Your task to perform on an android device: Open Wikipedia Image 0: 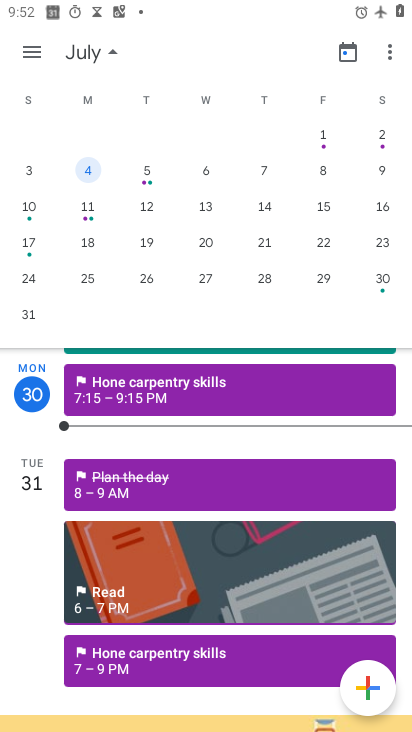
Step 0: press home button
Your task to perform on an android device: Open Wikipedia Image 1: 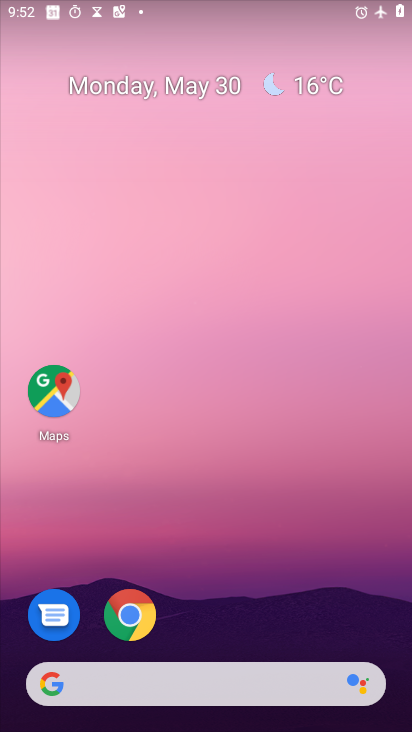
Step 1: drag from (275, 580) to (249, 27)
Your task to perform on an android device: Open Wikipedia Image 2: 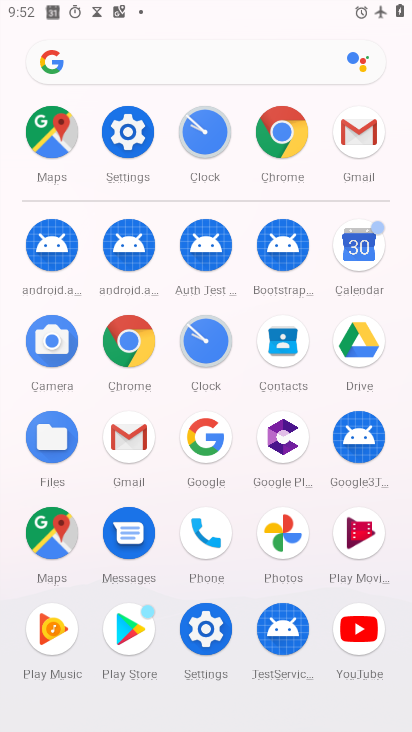
Step 2: click (275, 148)
Your task to perform on an android device: Open Wikipedia Image 3: 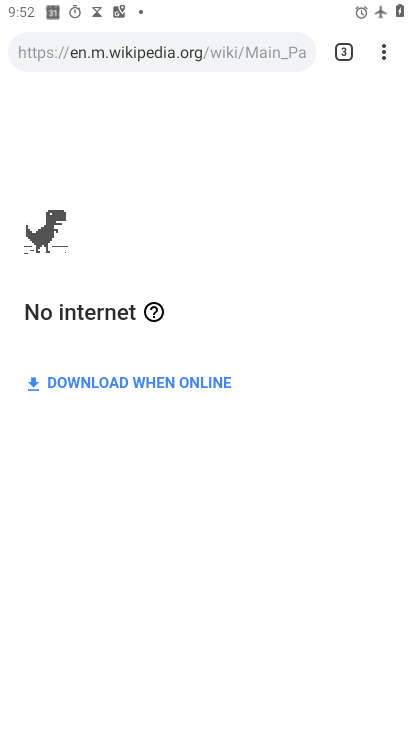
Step 3: task complete